Your task to perform on an android device: stop showing notifications on the lock screen Image 0: 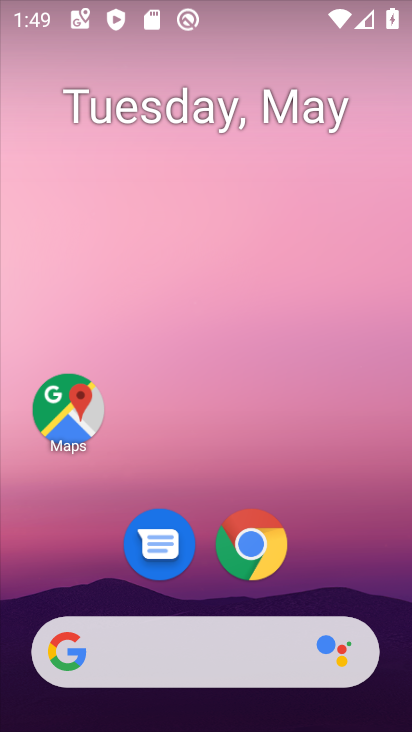
Step 0: drag from (363, 582) to (299, 190)
Your task to perform on an android device: stop showing notifications on the lock screen Image 1: 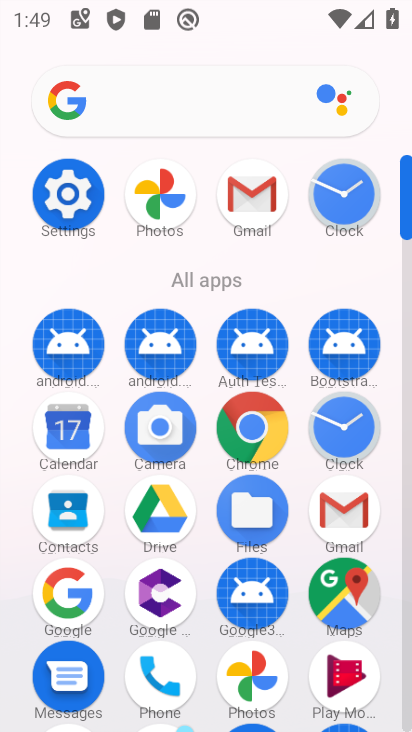
Step 1: click (77, 180)
Your task to perform on an android device: stop showing notifications on the lock screen Image 2: 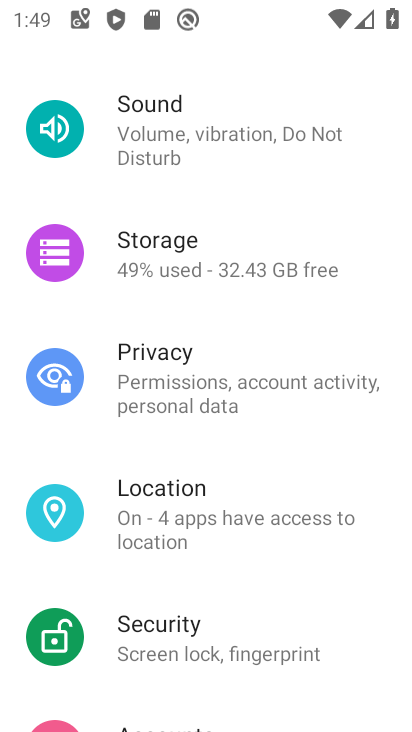
Step 2: drag from (250, 178) to (197, 563)
Your task to perform on an android device: stop showing notifications on the lock screen Image 3: 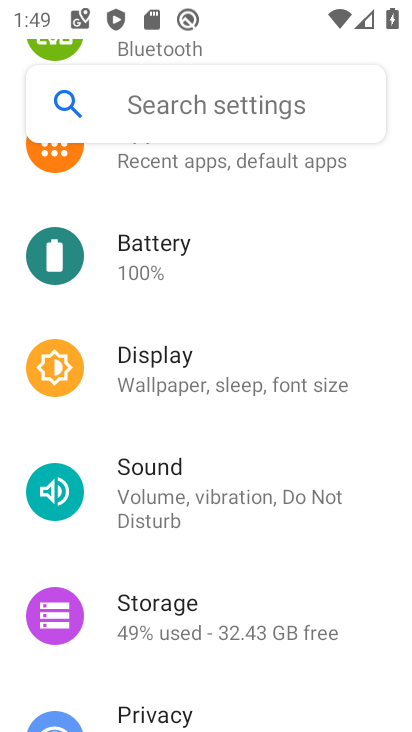
Step 3: drag from (191, 174) to (216, 460)
Your task to perform on an android device: stop showing notifications on the lock screen Image 4: 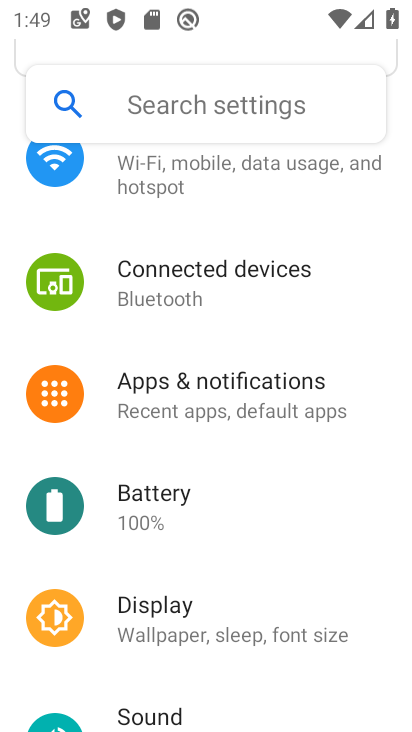
Step 4: click (192, 412)
Your task to perform on an android device: stop showing notifications on the lock screen Image 5: 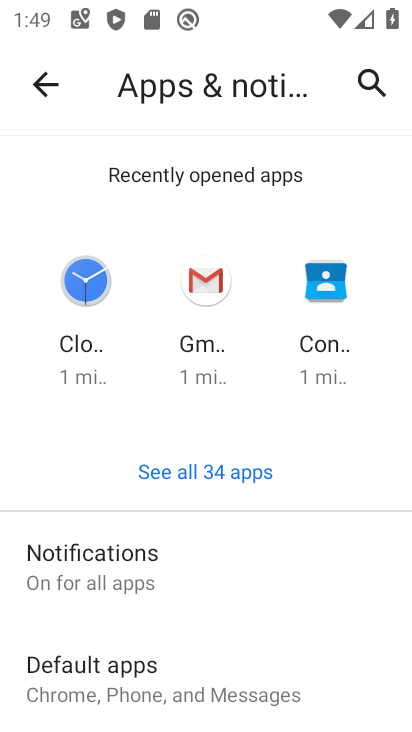
Step 5: click (83, 585)
Your task to perform on an android device: stop showing notifications on the lock screen Image 6: 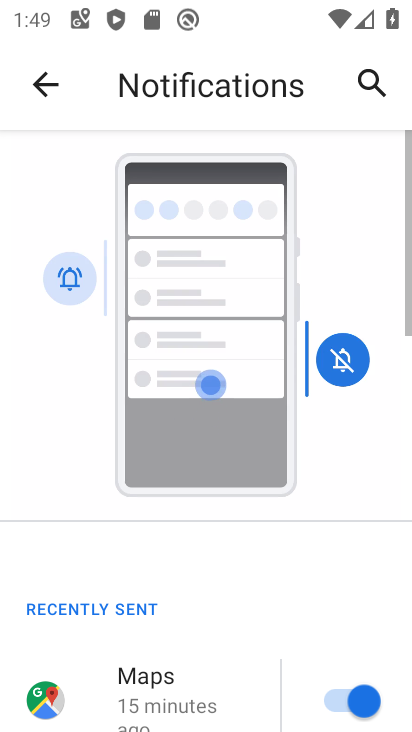
Step 6: drag from (152, 643) to (210, 19)
Your task to perform on an android device: stop showing notifications on the lock screen Image 7: 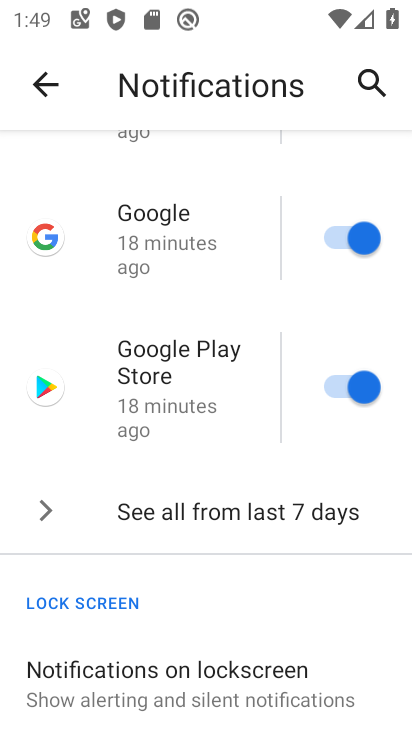
Step 7: click (178, 664)
Your task to perform on an android device: stop showing notifications on the lock screen Image 8: 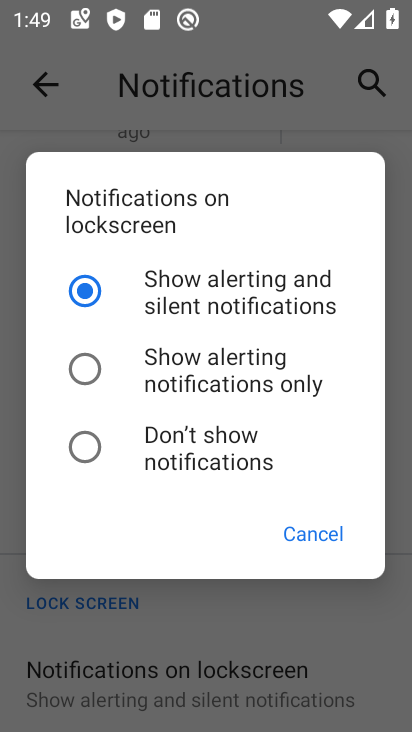
Step 8: click (169, 435)
Your task to perform on an android device: stop showing notifications on the lock screen Image 9: 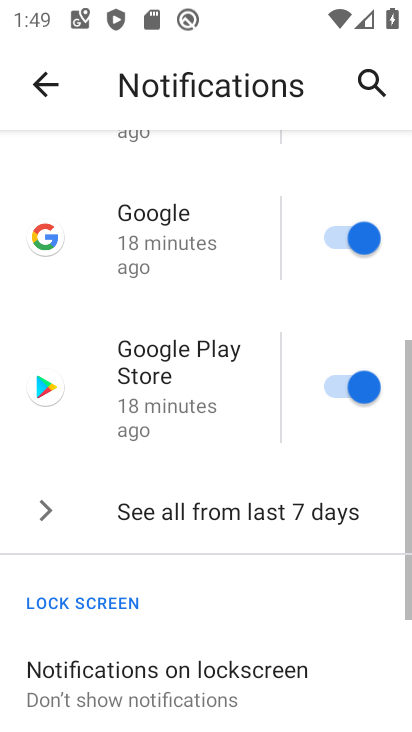
Step 9: task complete